Your task to perform on an android device: Open Google Image 0: 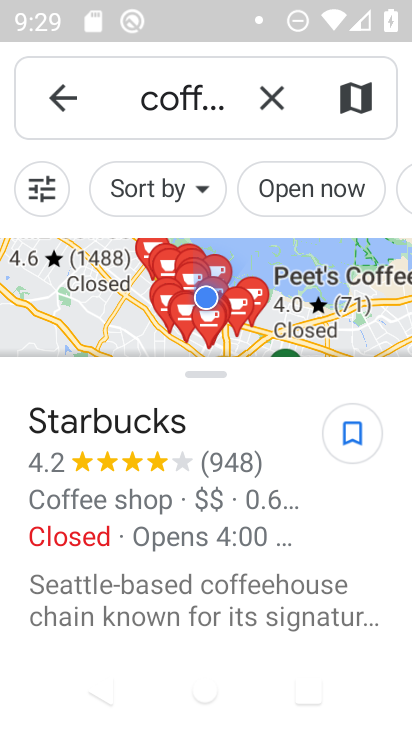
Step 0: press home button
Your task to perform on an android device: Open Google Image 1: 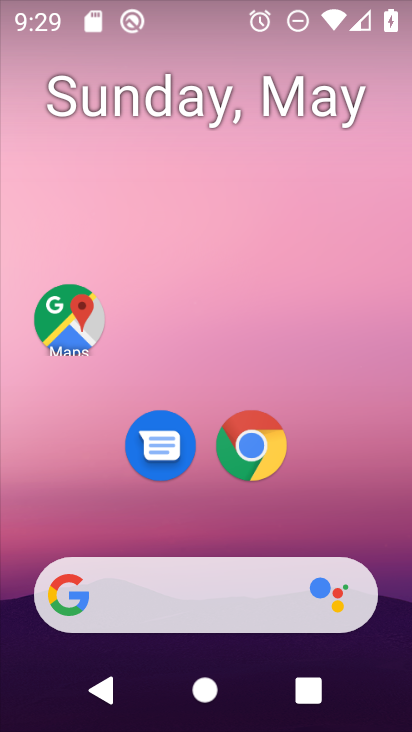
Step 1: drag from (304, 579) to (332, 164)
Your task to perform on an android device: Open Google Image 2: 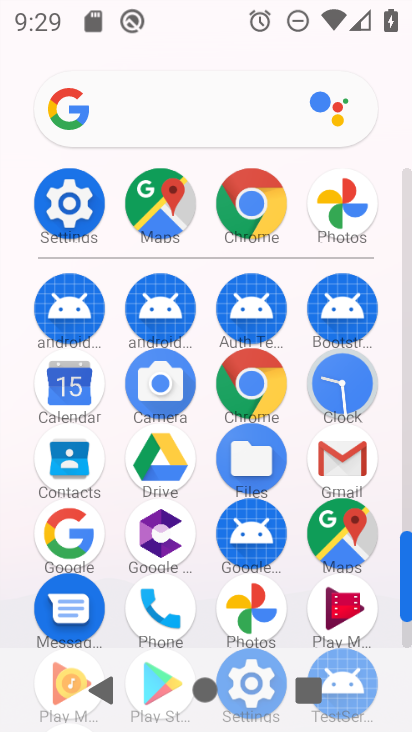
Step 2: click (69, 538)
Your task to perform on an android device: Open Google Image 3: 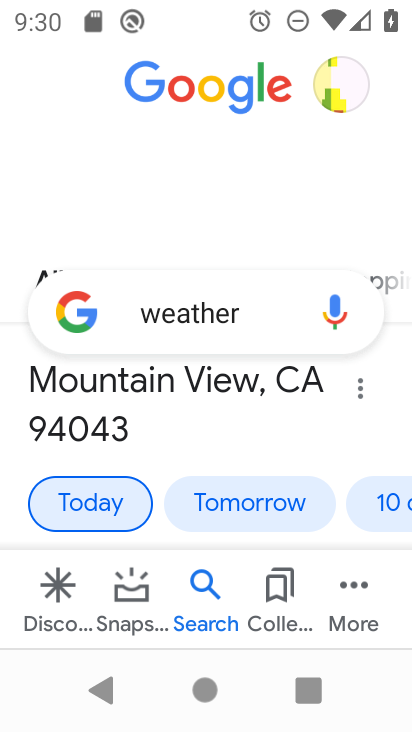
Step 3: task complete